Your task to perform on an android device: Search for seafood restaurants on Google Maps Image 0: 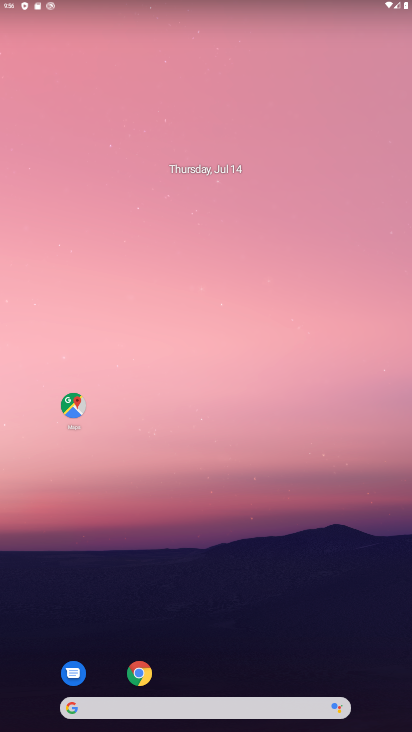
Step 0: drag from (209, 683) to (175, 147)
Your task to perform on an android device: Search for seafood restaurants on Google Maps Image 1: 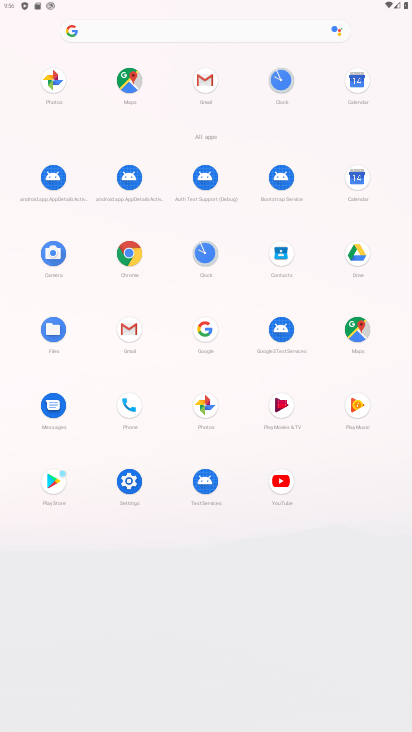
Step 1: click (358, 329)
Your task to perform on an android device: Search for seafood restaurants on Google Maps Image 2: 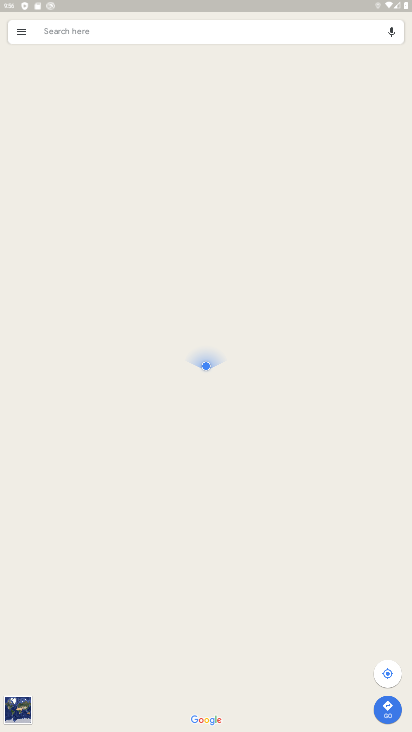
Step 2: click (238, 38)
Your task to perform on an android device: Search for seafood restaurants on Google Maps Image 3: 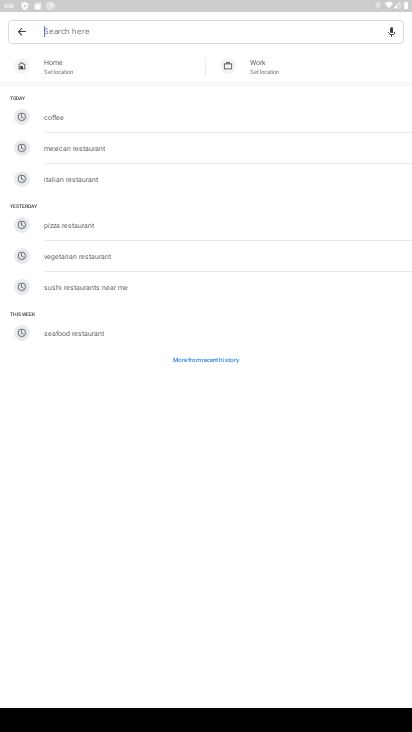
Step 3: click (79, 337)
Your task to perform on an android device: Search for seafood restaurants on Google Maps Image 4: 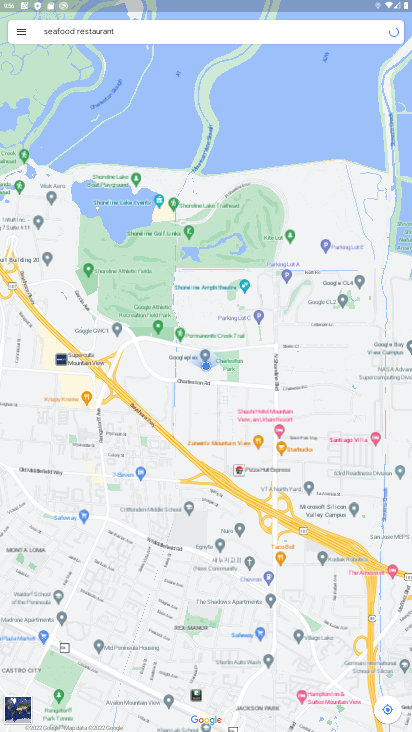
Step 4: task complete